Your task to perform on an android device: open app "DoorDash - Dasher" (install if not already installed), go to login, and select forgot password Image 0: 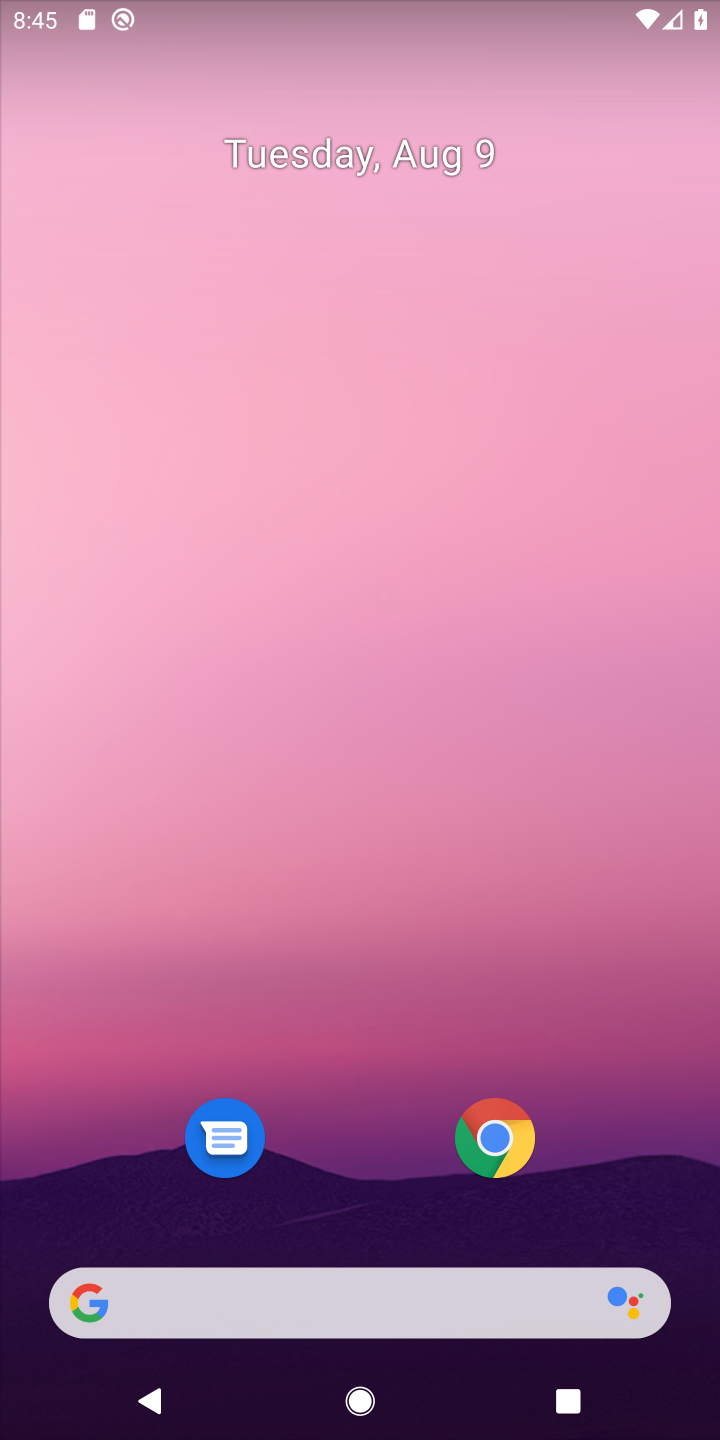
Step 0: click (374, 331)
Your task to perform on an android device: open app "DoorDash - Dasher" (install if not already installed), go to login, and select forgot password Image 1: 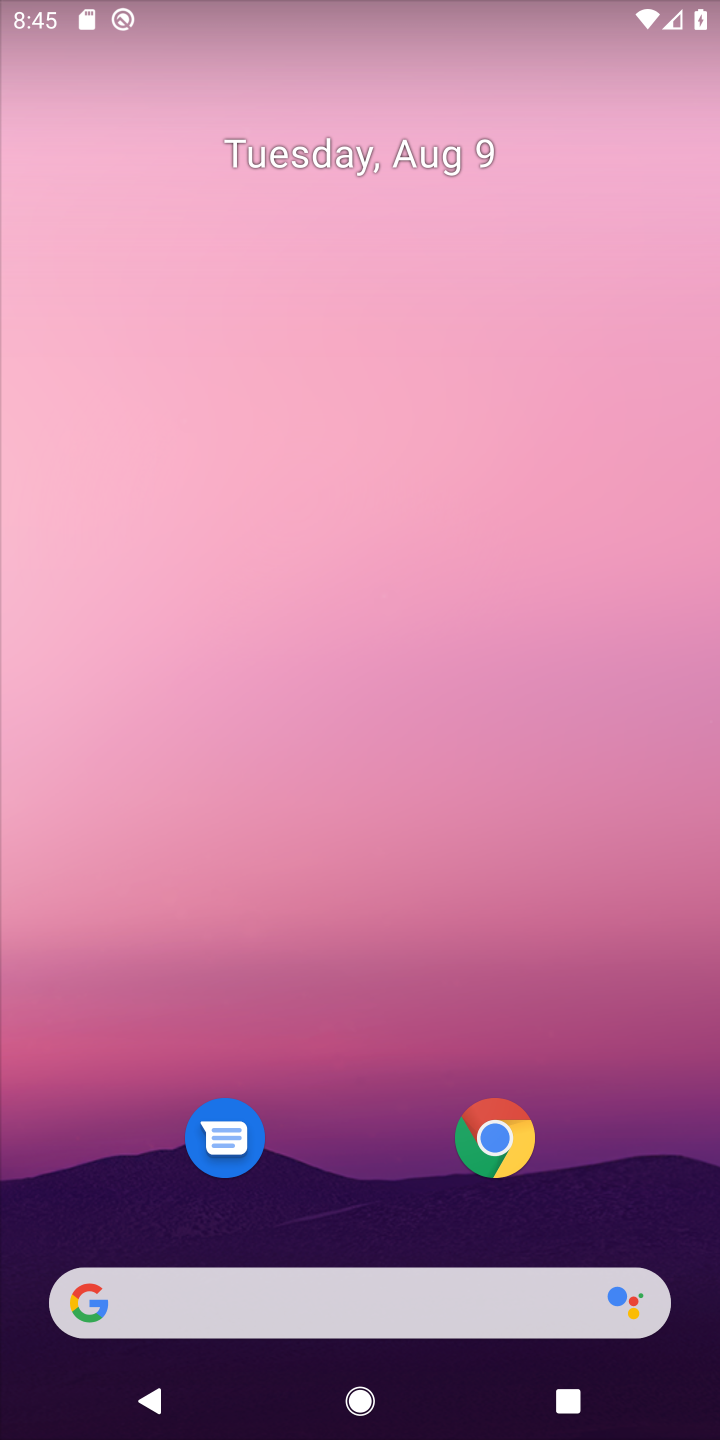
Step 1: click (422, 25)
Your task to perform on an android device: open app "DoorDash - Dasher" (install if not already installed), go to login, and select forgot password Image 2: 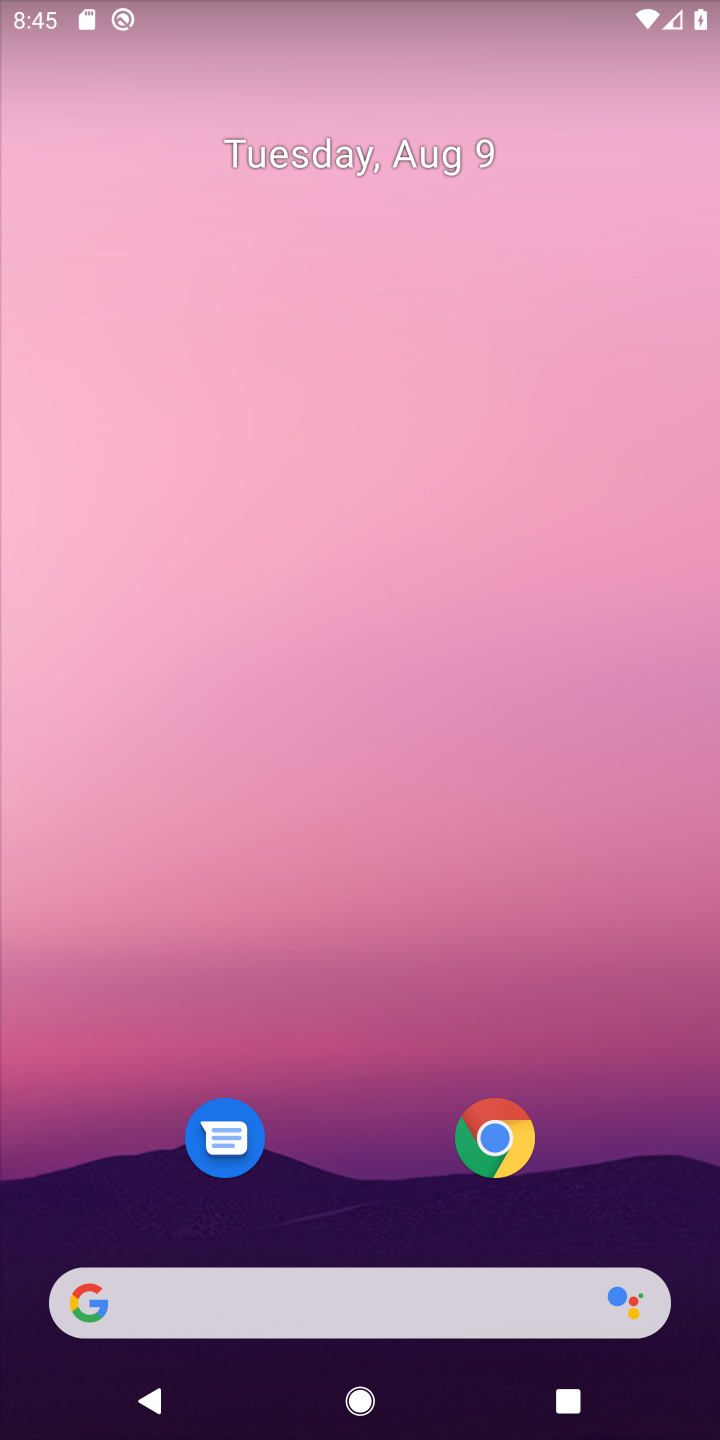
Step 2: drag from (334, 1193) to (419, 272)
Your task to perform on an android device: open app "DoorDash - Dasher" (install if not already installed), go to login, and select forgot password Image 3: 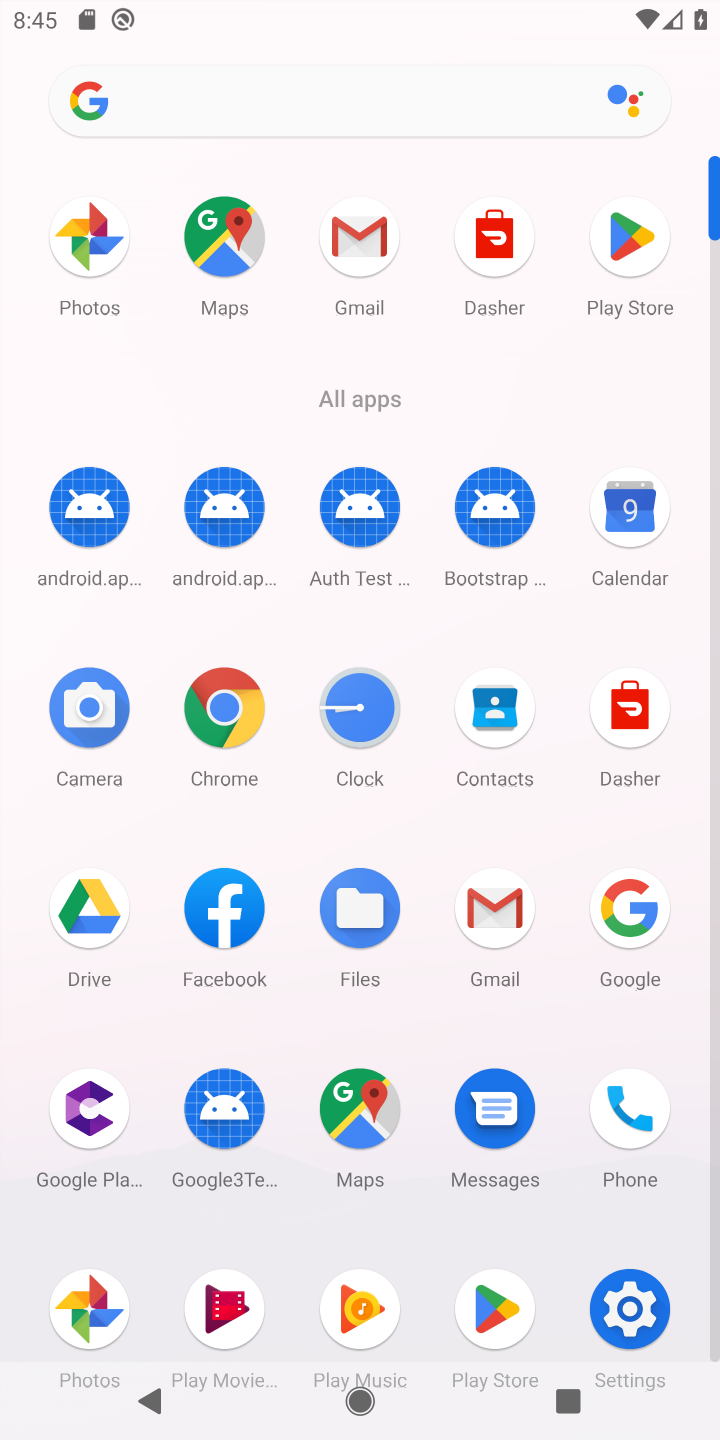
Step 3: click (636, 256)
Your task to perform on an android device: open app "DoorDash - Dasher" (install if not already installed), go to login, and select forgot password Image 4: 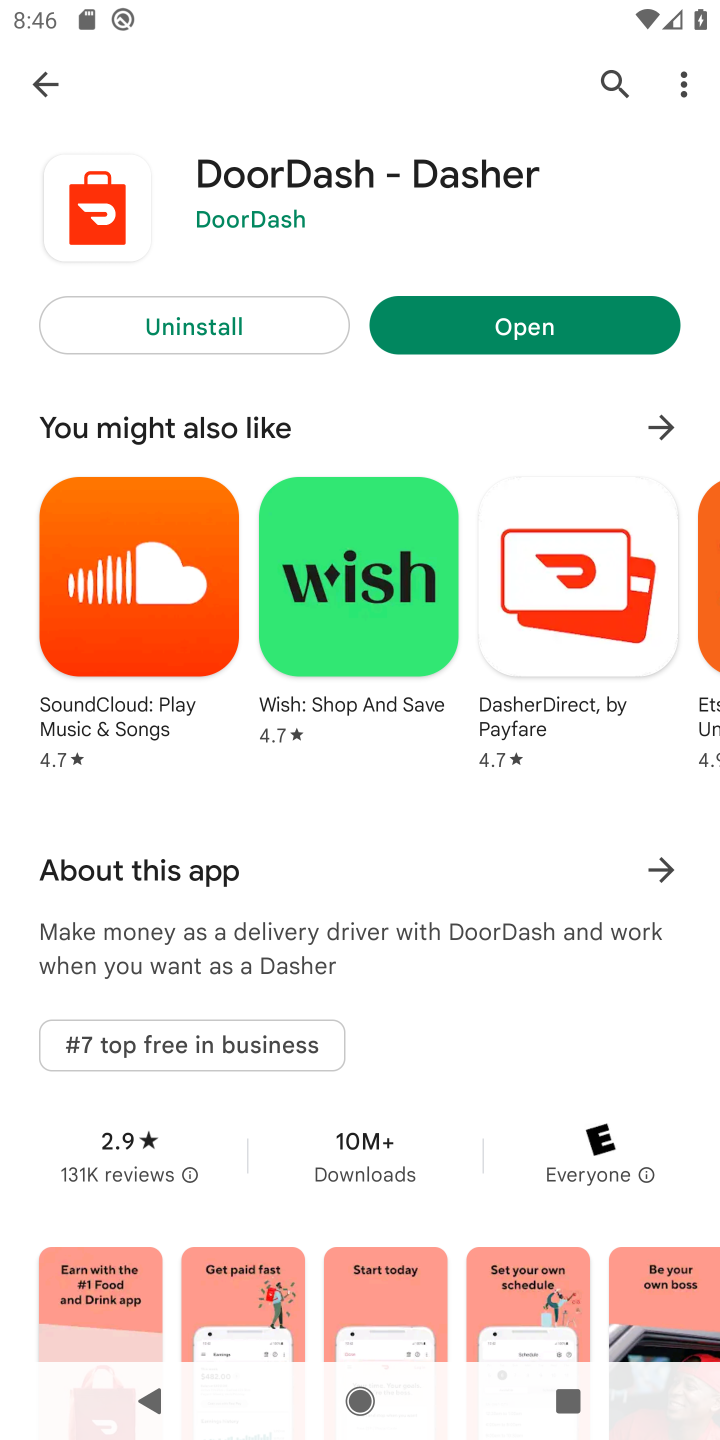
Step 4: click (494, 313)
Your task to perform on an android device: open app "DoorDash - Dasher" (install if not already installed), go to login, and select forgot password Image 5: 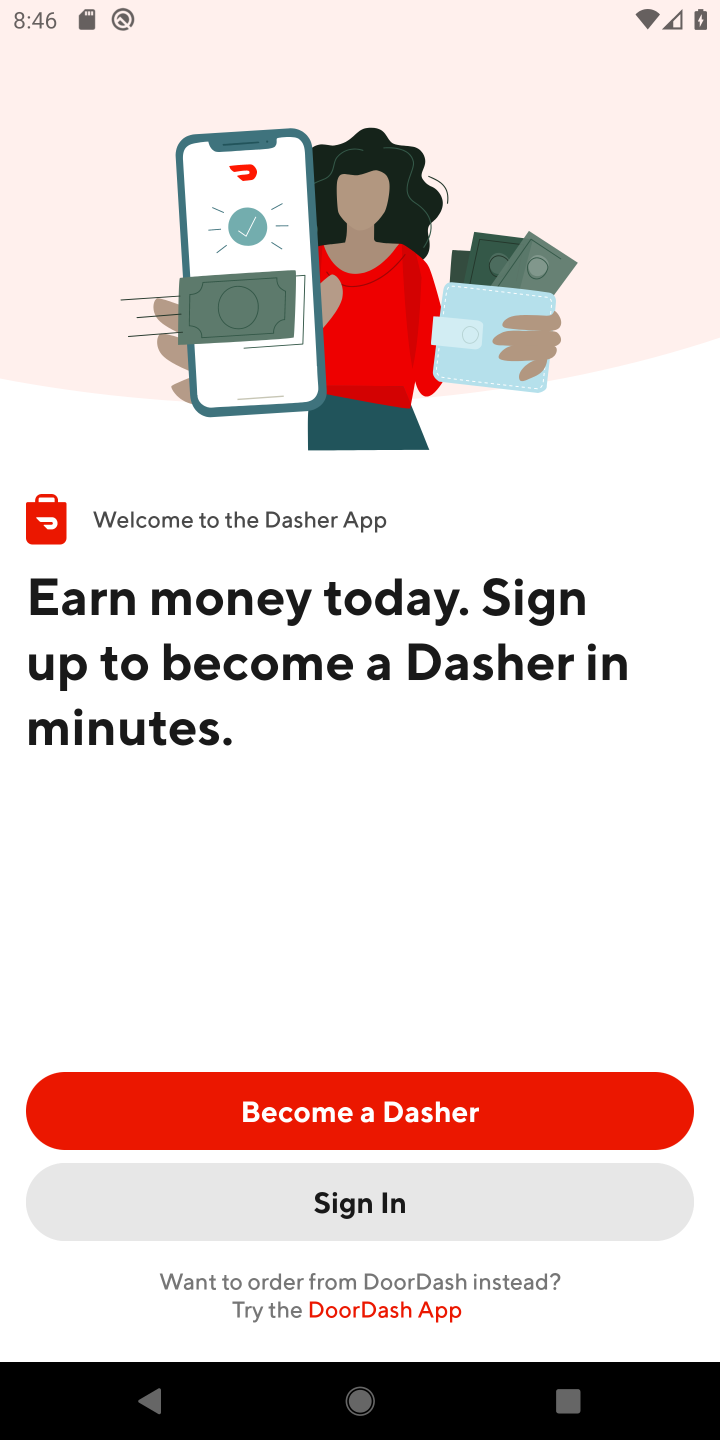
Step 5: task complete